Your task to perform on an android device: turn on the 24-hour format for clock Image 0: 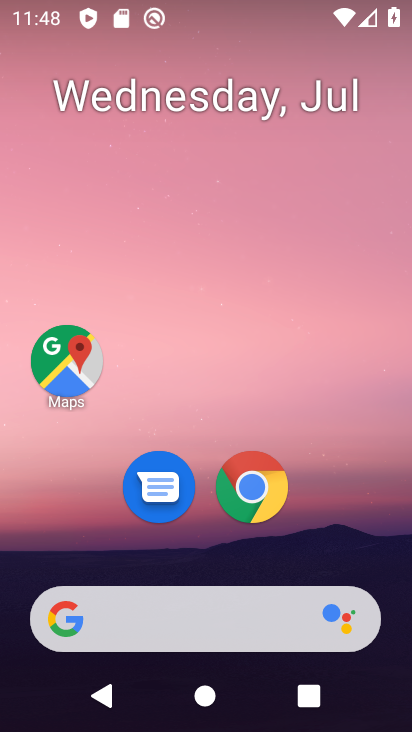
Step 0: drag from (216, 614) to (231, 67)
Your task to perform on an android device: turn on the 24-hour format for clock Image 1: 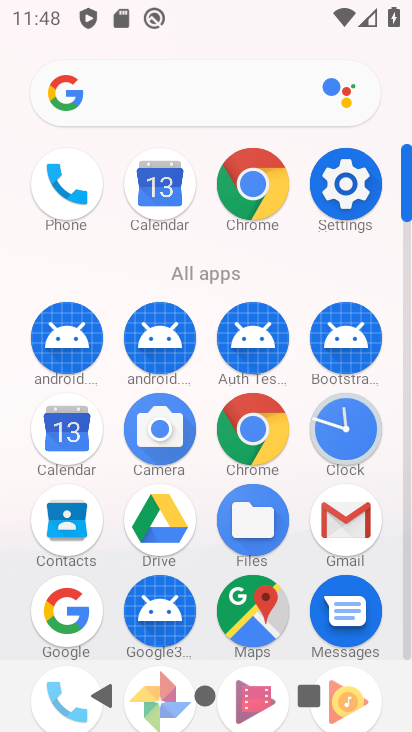
Step 1: click (331, 446)
Your task to perform on an android device: turn on the 24-hour format for clock Image 2: 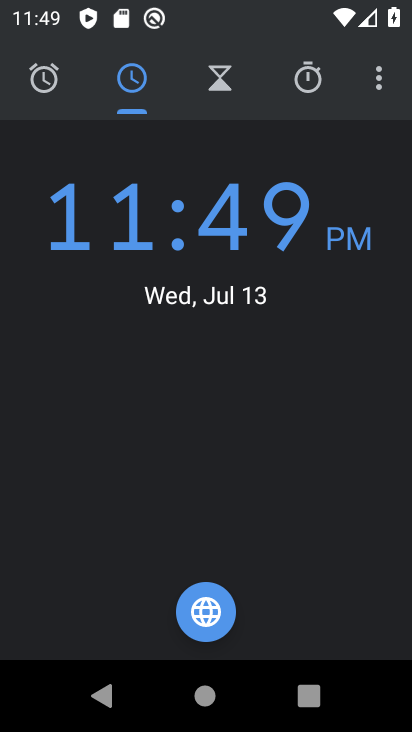
Step 2: click (375, 97)
Your task to perform on an android device: turn on the 24-hour format for clock Image 3: 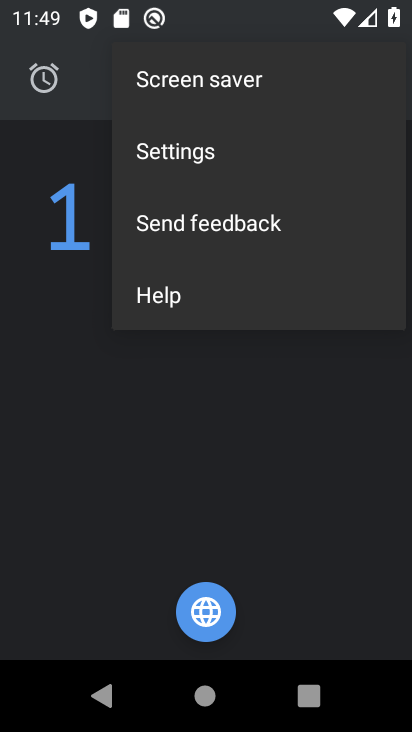
Step 3: click (183, 151)
Your task to perform on an android device: turn on the 24-hour format for clock Image 4: 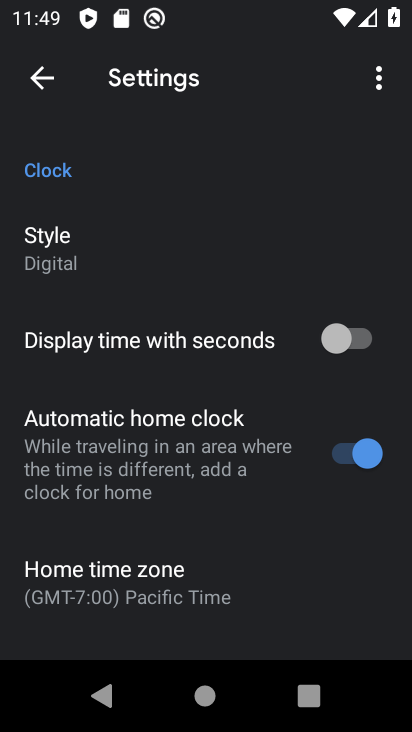
Step 4: drag from (182, 479) to (222, 249)
Your task to perform on an android device: turn on the 24-hour format for clock Image 5: 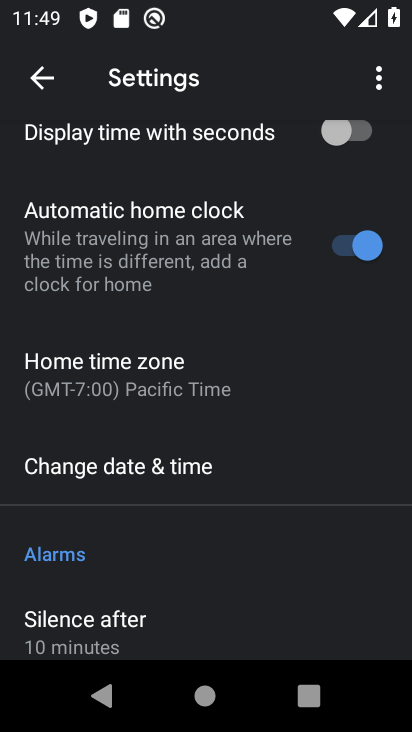
Step 5: click (162, 464)
Your task to perform on an android device: turn on the 24-hour format for clock Image 6: 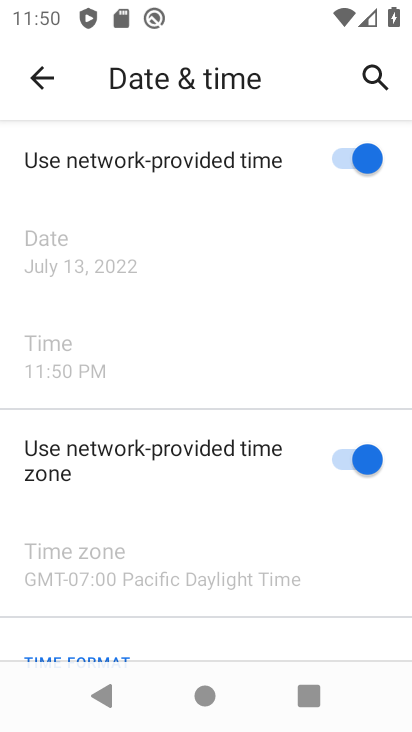
Step 6: task complete